Your task to perform on an android device: set the timer Image 0: 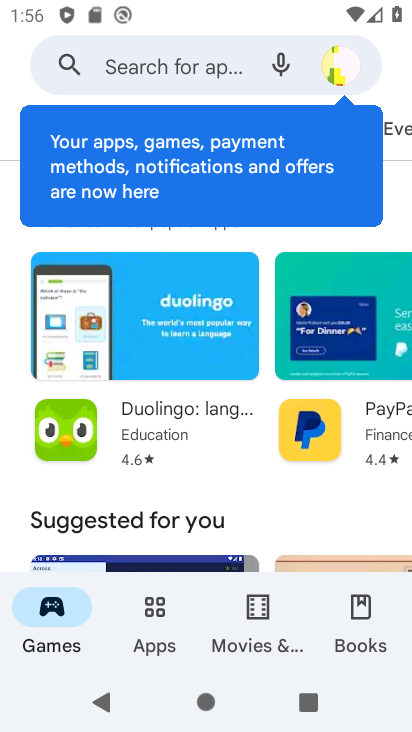
Step 0: press home button
Your task to perform on an android device: set the timer Image 1: 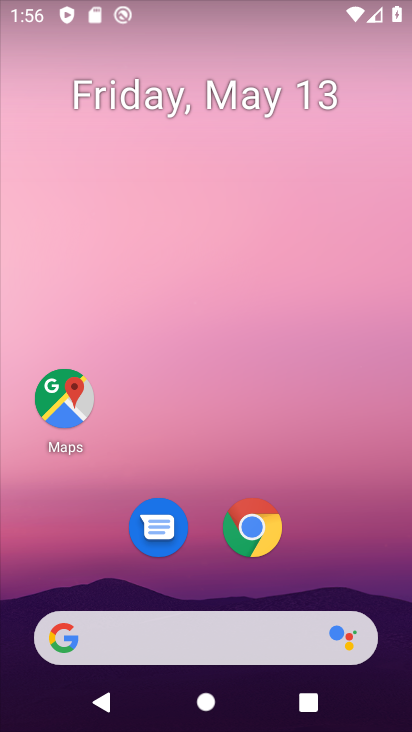
Step 1: drag from (392, 551) to (294, 149)
Your task to perform on an android device: set the timer Image 2: 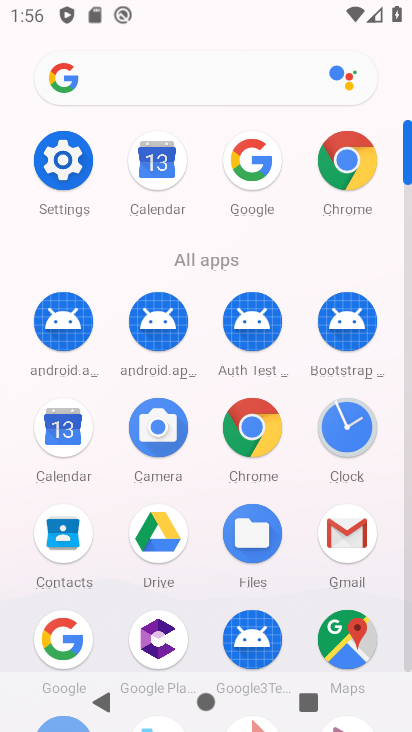
Step 2: click (359, 424)
Your task to perform on an android device: set the timer Image 3: 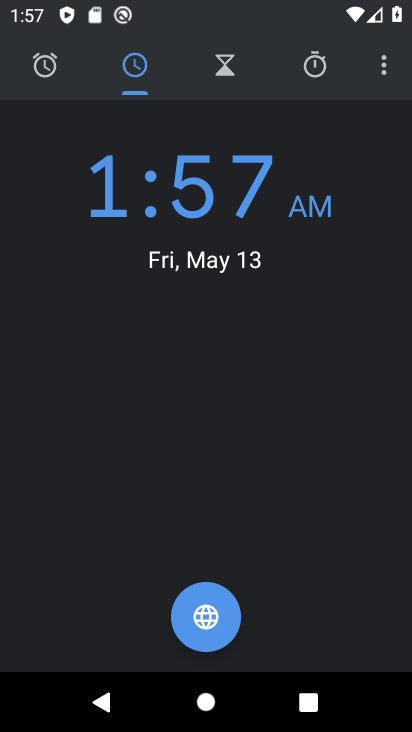
Step 3: click (228, 74)
Your task to perform on an android device: set the timer Image 4: 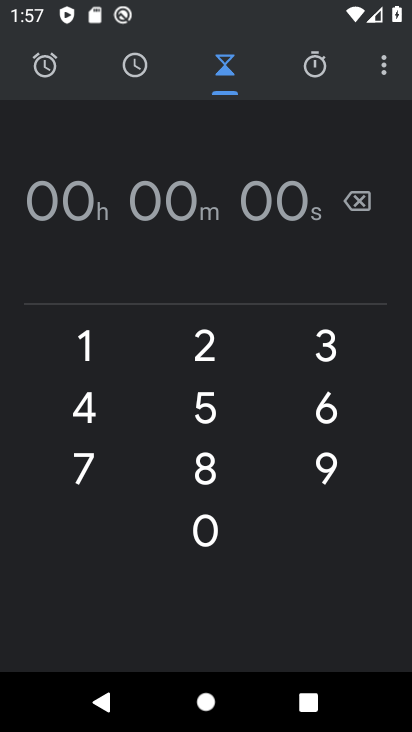
Step 4: click (86, 336)
Your task to perform on an android device: set the timer Image 5: 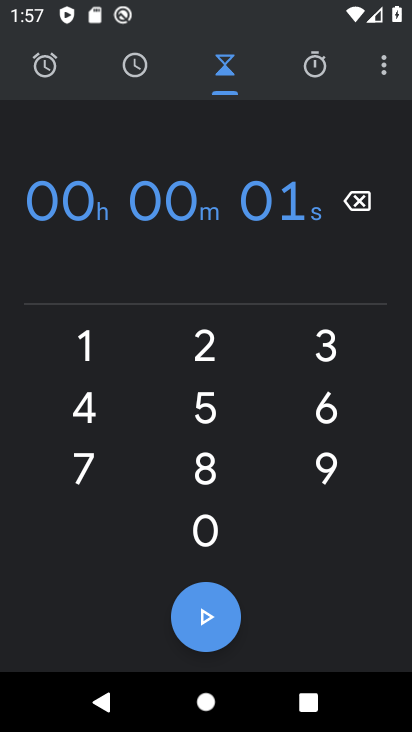
Step 5: click (204, 408)
Your task to perform on an android device: set the timer Image 6: 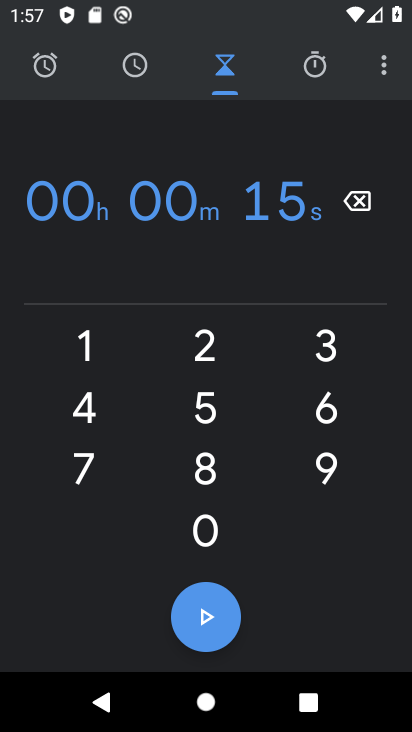
Step 6: click (219, 608)
Your task to perform on an android device: set the timer Image 7: 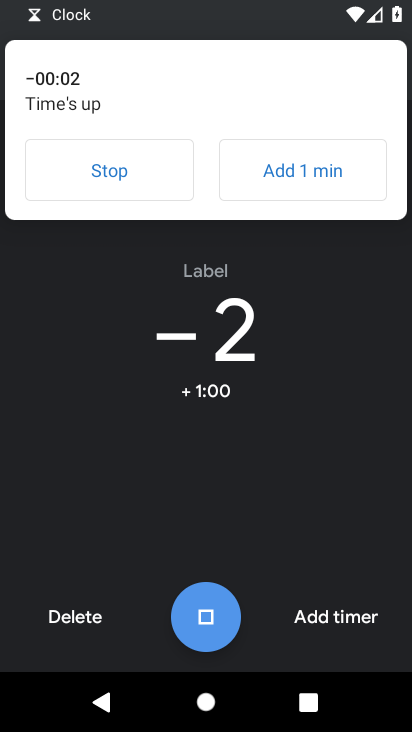
Step 7: click (148, 183)
Your task to perform on an android device: set the timer Image 8: 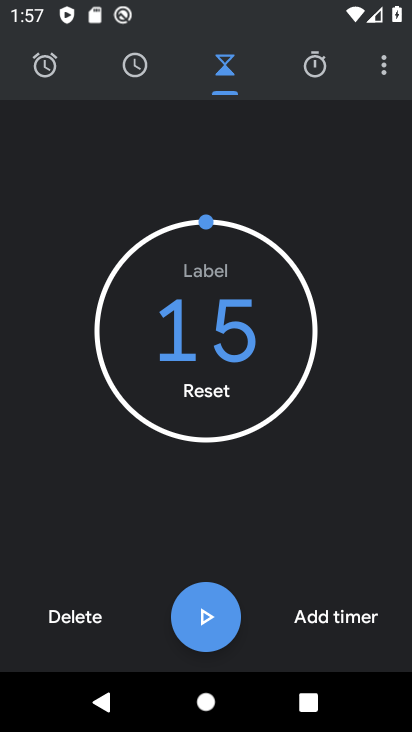
Step 8: task complete